Your task to perform on an android device: turn off airplane mode Image 0: 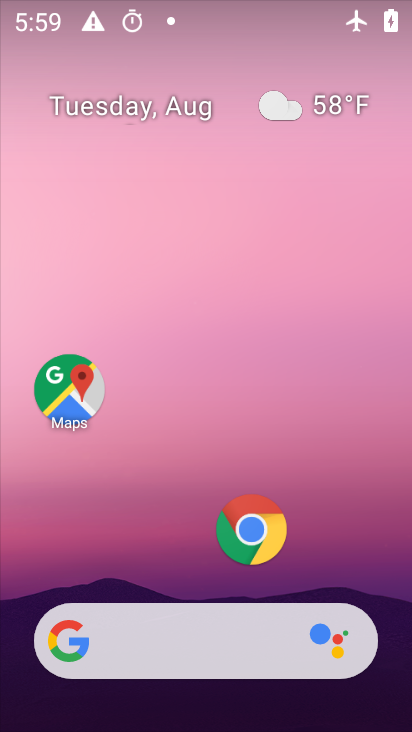
Step 0: drag from (172, 544) to (172, 172)
Your task to perform on an android device: turn off airplane mode Image 1: 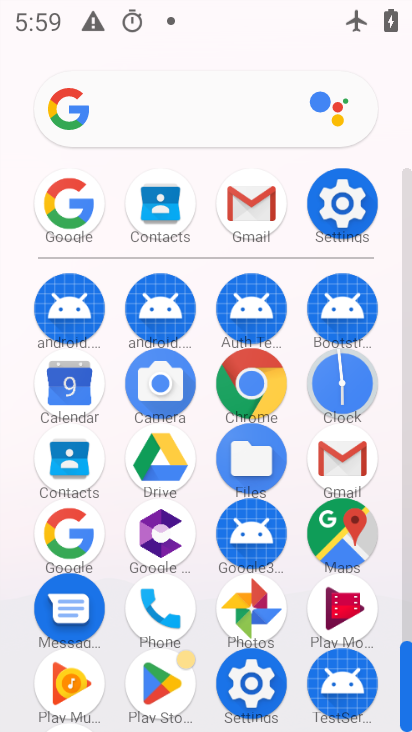
Step 1: click (340, 214)
Your task to perform on an android device: turn off airplane mode Image 2: 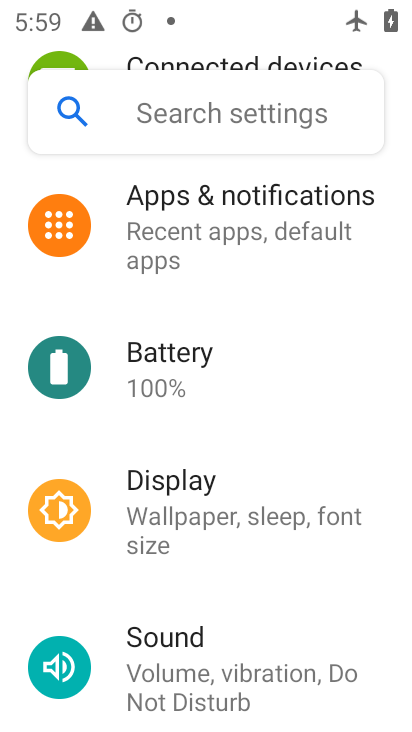
Step 2: drag from (243, 265) to (231, 536)
Your task to perform on an android device: turn off airplane mode Image 3: 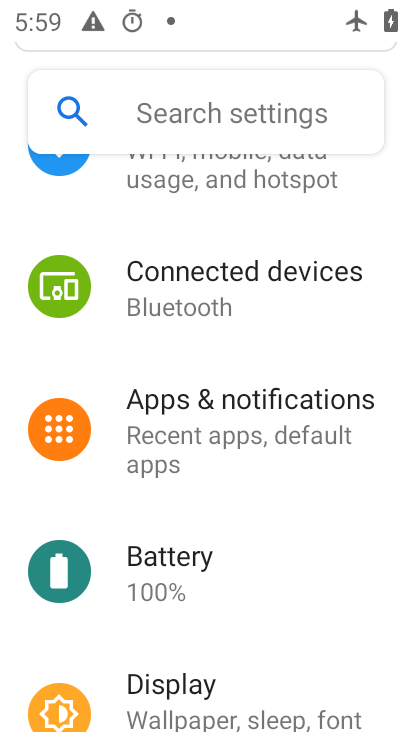
Step 3: drag from (243, 246) to (243, 642)
Your task to perform on an android device: turn off airplane mode Image 4: 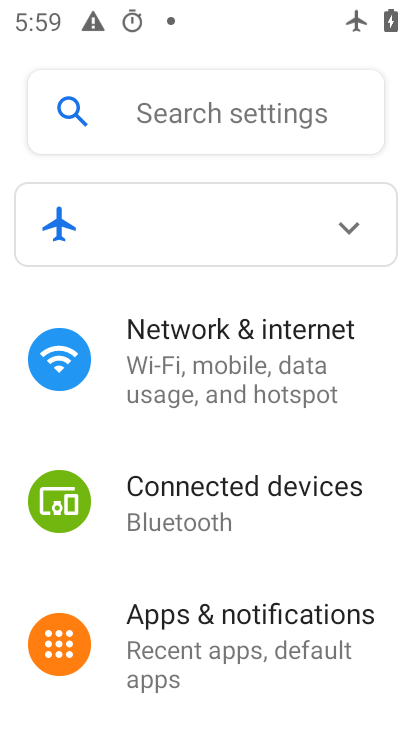
Step 4: click (231, 380)
Your task to perform on an android device: turn off airplane mode Image 5: 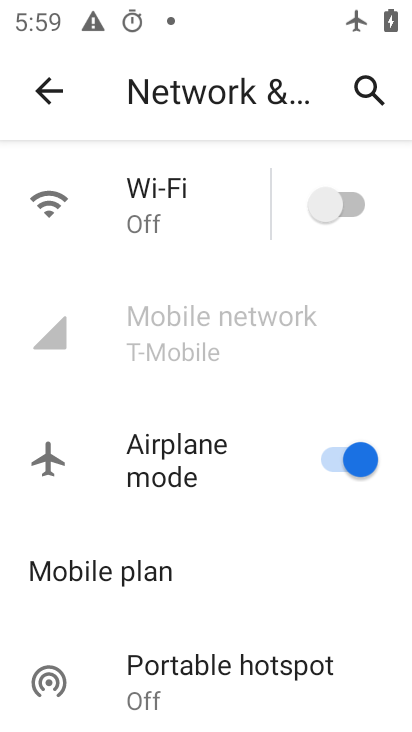
Step 5: click (354, 462)
Your task to perform on an android device: turn off airplane mode Image 6: 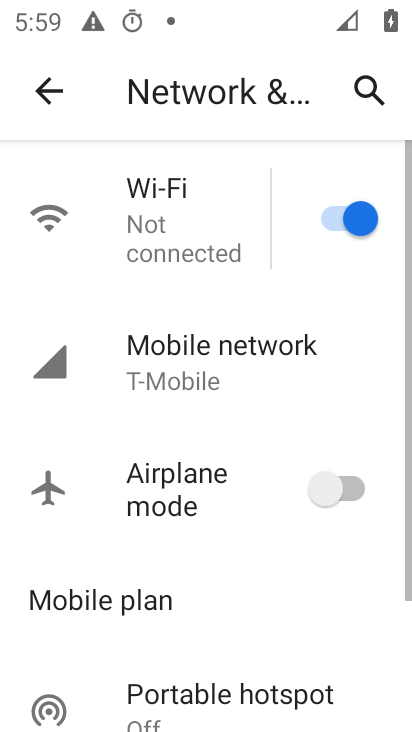
Step 6: task complete